Your task to perform on an android device: move an email to a new category in the gmail app Image 0: 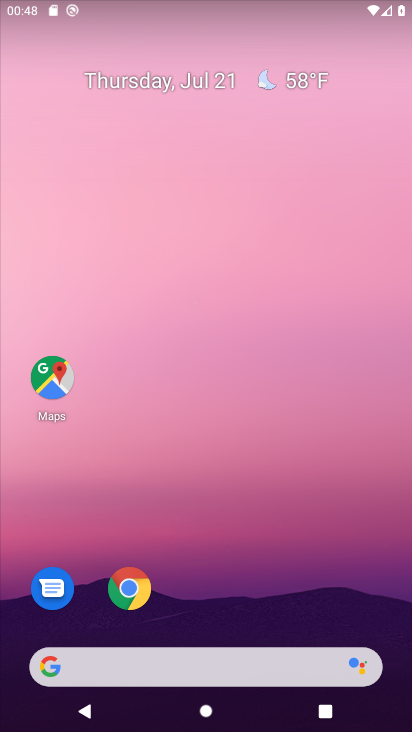
Step 0: drag from (200, 511) to (215, 0)
Your task to perform on an android device: move an email to a new category in the gmail app Image 1: 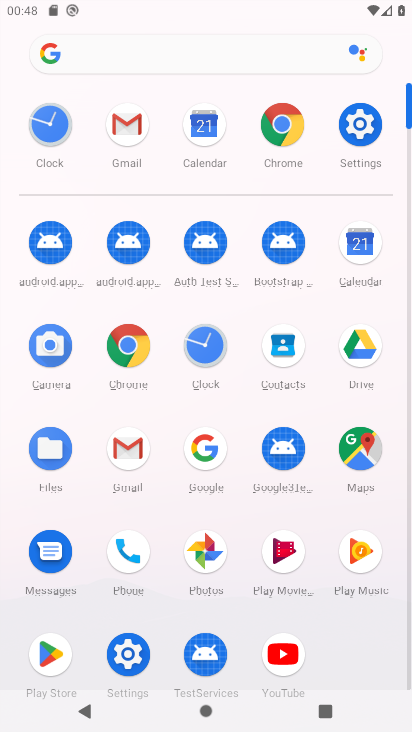
Step 1: click (124, 462)
Your task to perform on an android device: move an email to a new category in the gmail app Image 2: 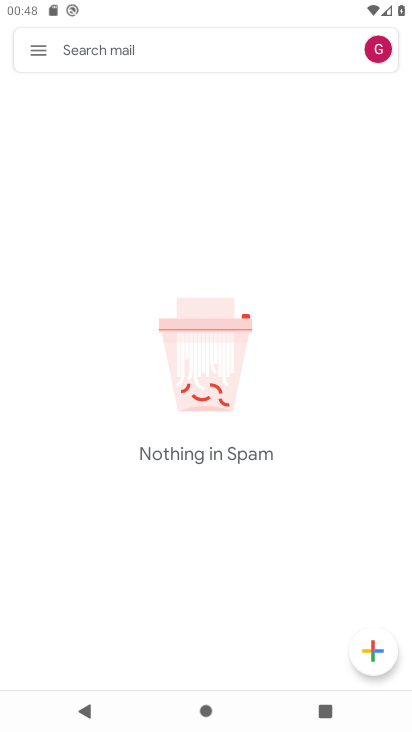
Step 2: click (38, 44)
Your task to perform on an android device: move an email to a new category in the gmail app Image 3: 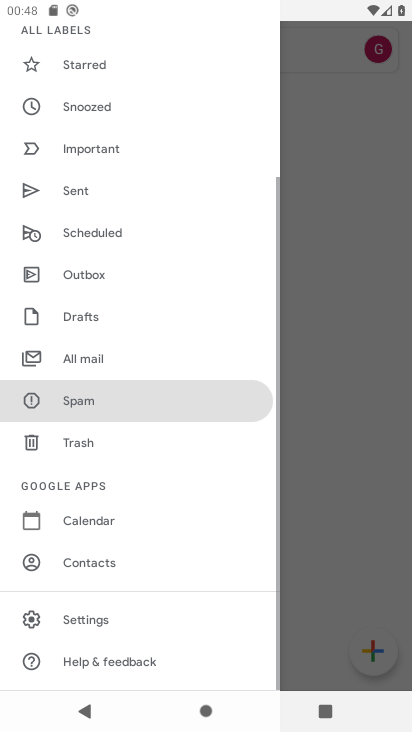
Step 3: drag from (121, 169) to (118, 446)
Your task to perform on an android device: move an email to a new category in the gmail app Image 4: 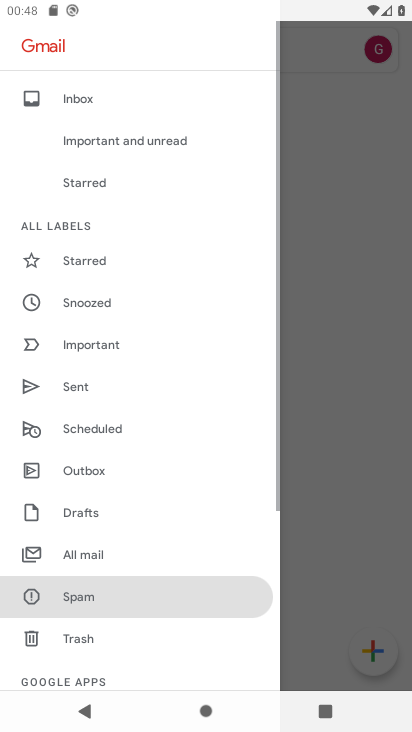
Step 4: click (94, 99)
Your task to perform on an android device: move an email to a new category in the gmail app Image 5: 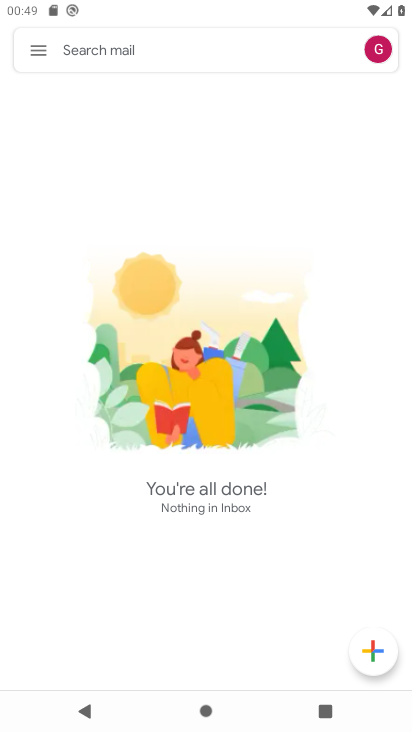
Step 5: task complete